Your task to perform on an android device: Show me productivity apps on the Play Store Image 0: 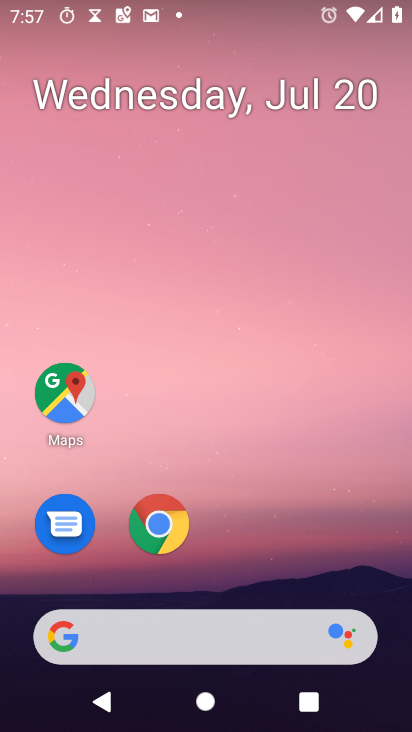
Step 0: drag from (206, 630) to (303, 124)
Your task to perform on an android device: Show me productivity apps on the Play Store Image 1: 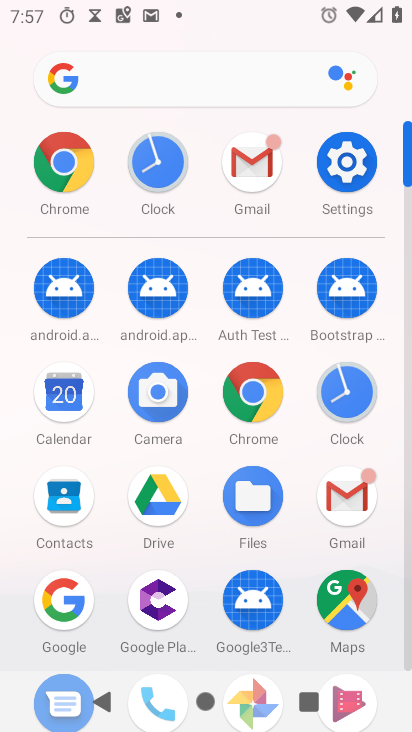
Step 1: drag from (209, 592) to (310, 96)
Your task to perform on an android device: Show me productivity apps on the Play Store Image 2: 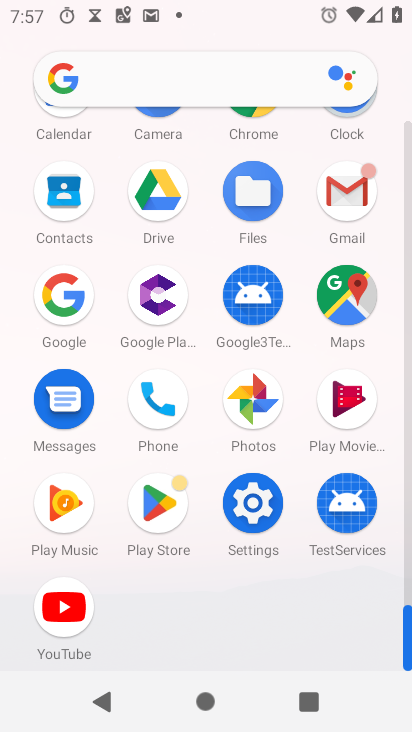
Step 2: click (152, 510)
Your task to perform on an android device: Show me productivity apps on the Play Store Image 3: 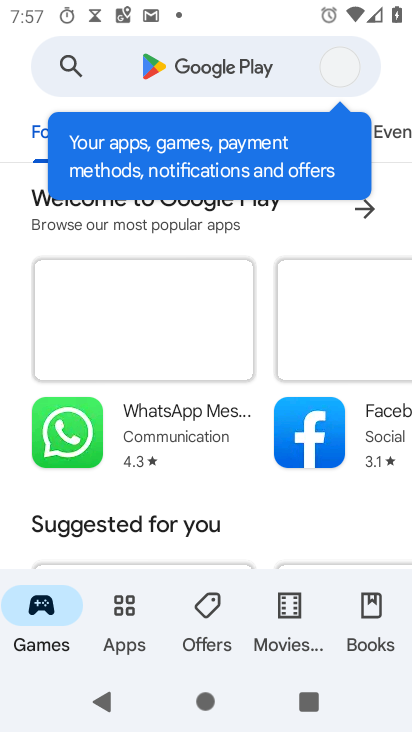
Step 3: click (131, 604)
Your task to perform on an android device: Show me productivity apps on the Play Store Image 4: 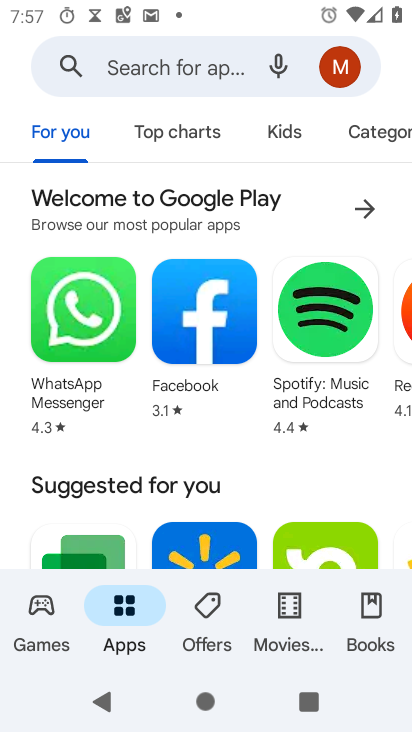
Step 4: click (376, 132)
Your task to perform on an android device: Show me productivity apps on the Play Store Image 5: 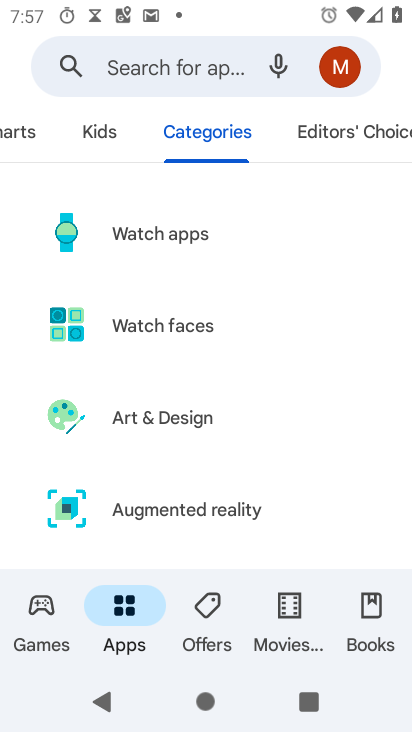
Step 5: drag from (233, 538) to (330, 48)
Your task to perform on an android device: Show me productivity apps on the Play Store Image 6: 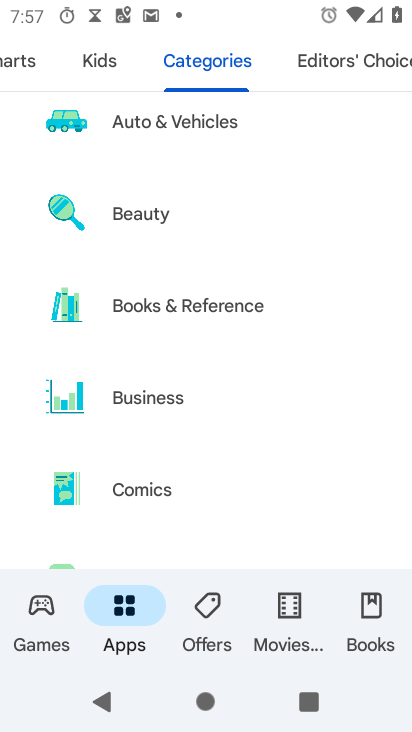
Step 6: drag from (262, 461) to (355, 99)
Your task to perform on an android device: Show me productivity apps on the Play Store Image 7: 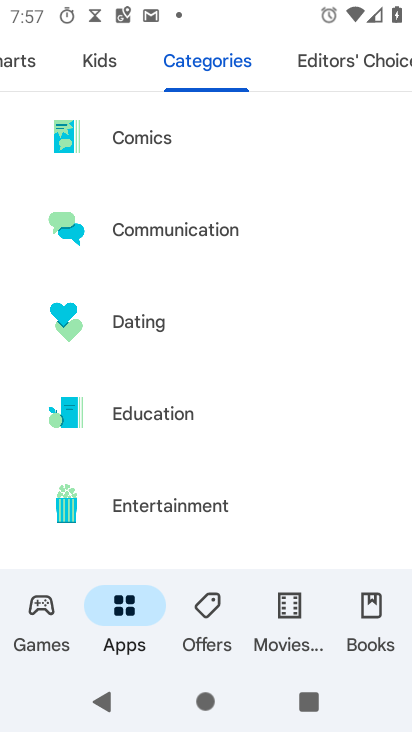
Step 7: drag from (282, 426) to (355, 12)
Your task to perform on an android device: Show me productivity apps on the Play Store Image 8: 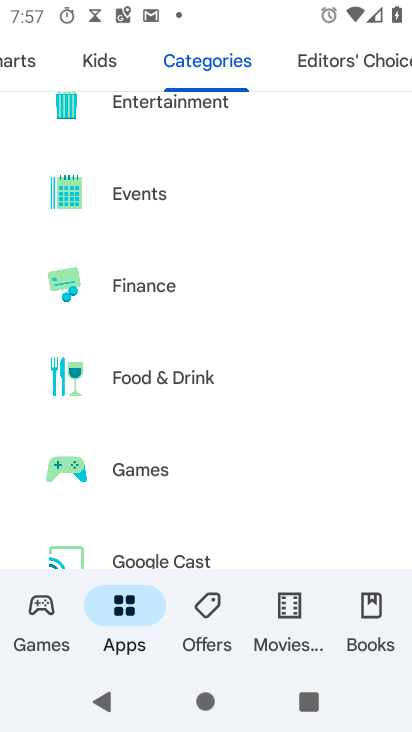
Step 8: drag from (238, 388) to (324, 0)
Your task to perform on an android device: Show me productivity apps on the Play Store Image 9: 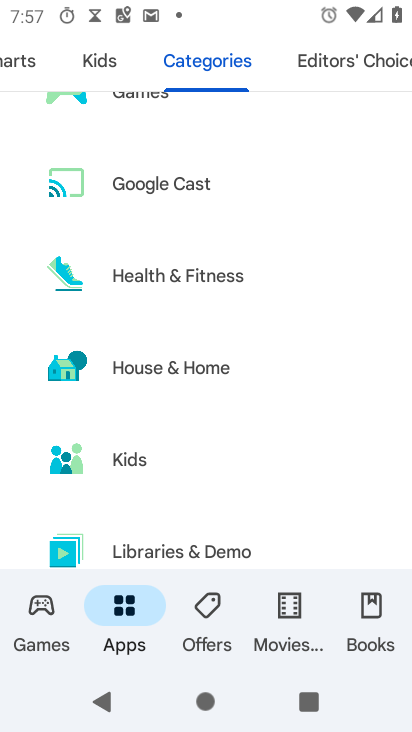
Step 9: drag from (140, 386) to (208, 111)
Your task to perform on an android device: Show me productivity apps on the Play Store Image 10: 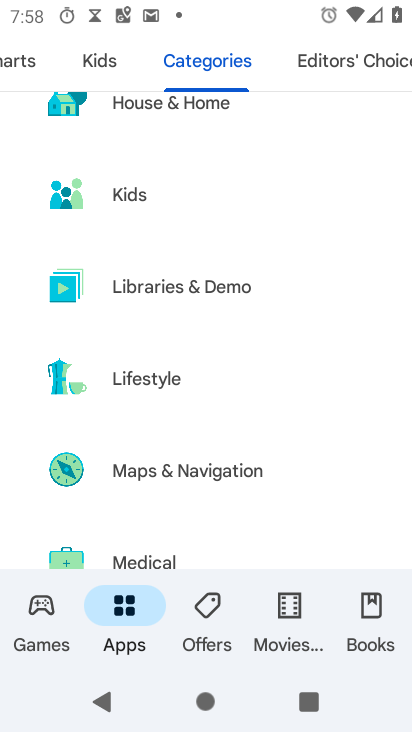
Step 10: drag from (262, 423) to (332, 149)
Your task to perform on an android device: Show me productivity apps on the Play Store Image 11: 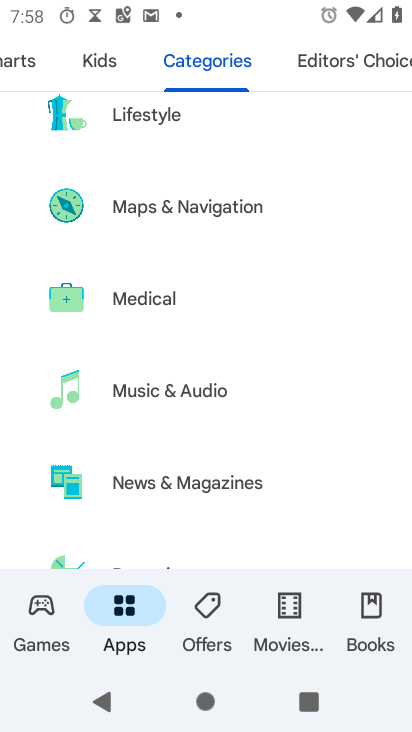
Step 11: drag from (288, 423) to (328, 117)
Your task to perform on an android device: Show me productivity apps on the Play Store Image 12: 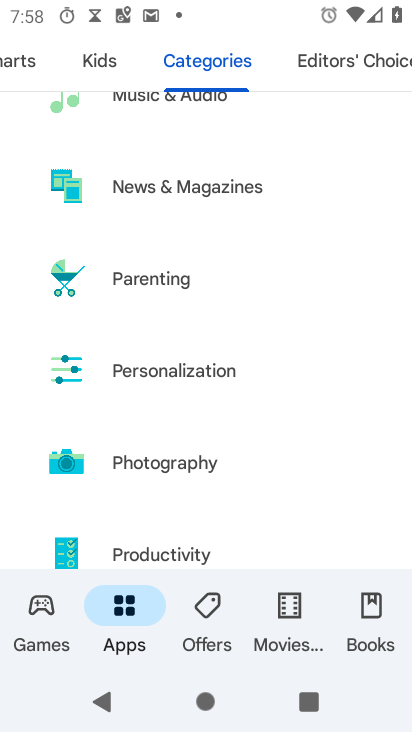
Step 12: click (145, 548)
Your task to perform on an android device: Show me productivity apps on the Play Store Image 13: 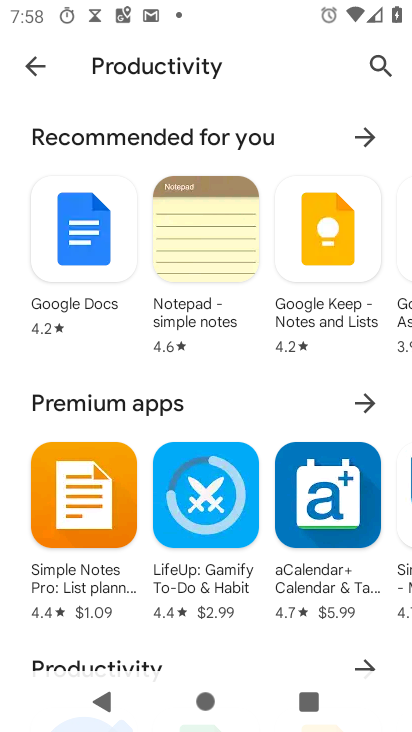
Step 13: task complete